Your task to perform on an android device: turn notification dots on Image 0: 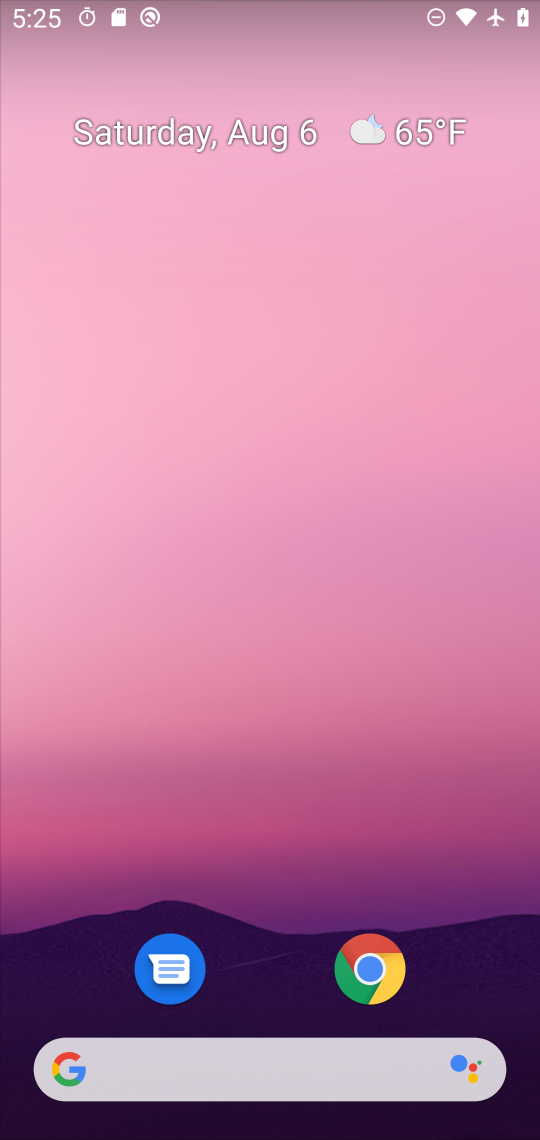
Step 0: drag from (277, 988) to (270, 1)
Your task to perform on an android device: turn notification dots on Image 1: 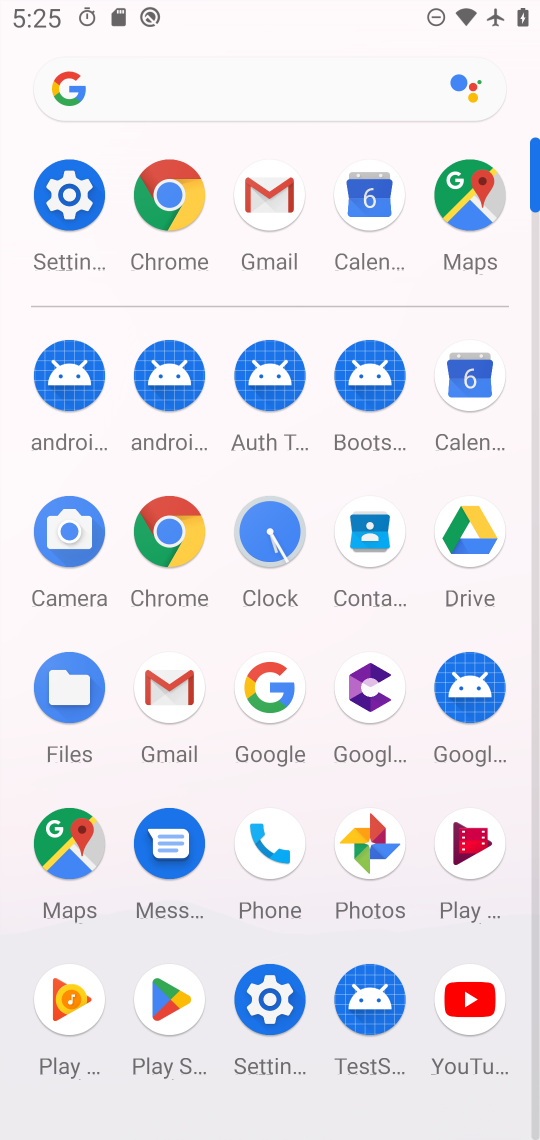
Step 1: click (68, 200)
Your task to perform on an android device: turn notification dots on Image 2: 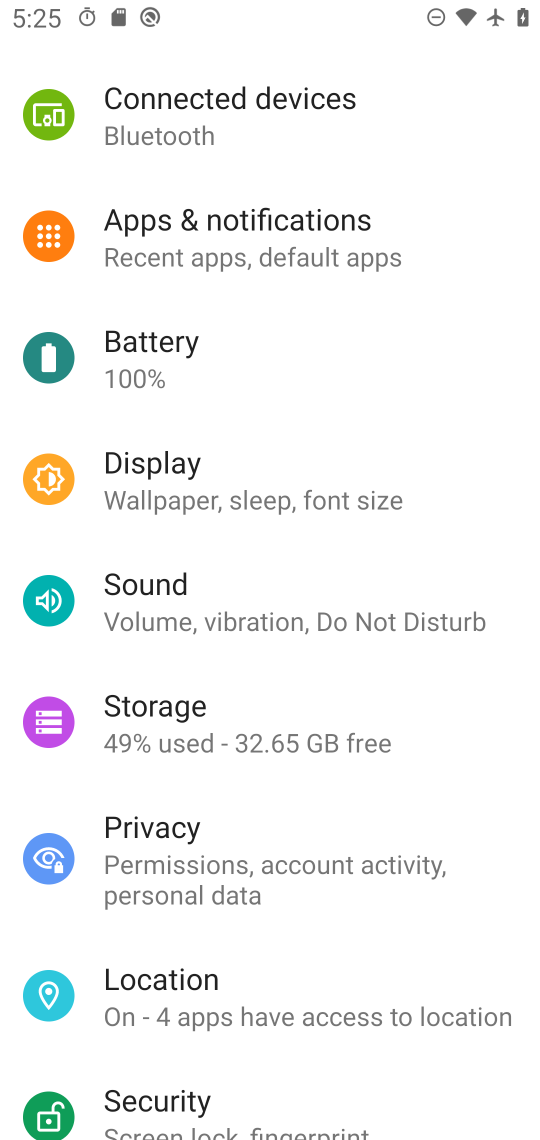
Step 2: drag from (389, 1070) to (321, 1014)
Your task to perform on an android device: turn notification dots on Image 3: 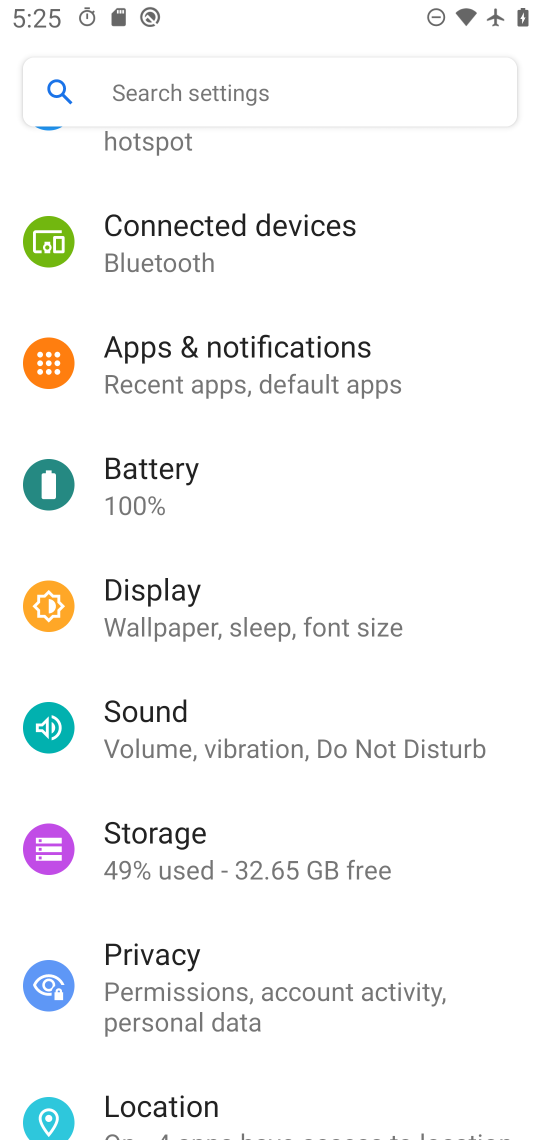
Step 3: click (225, 369)
Your task to perform on an android device: turn notification dots on Image 4: 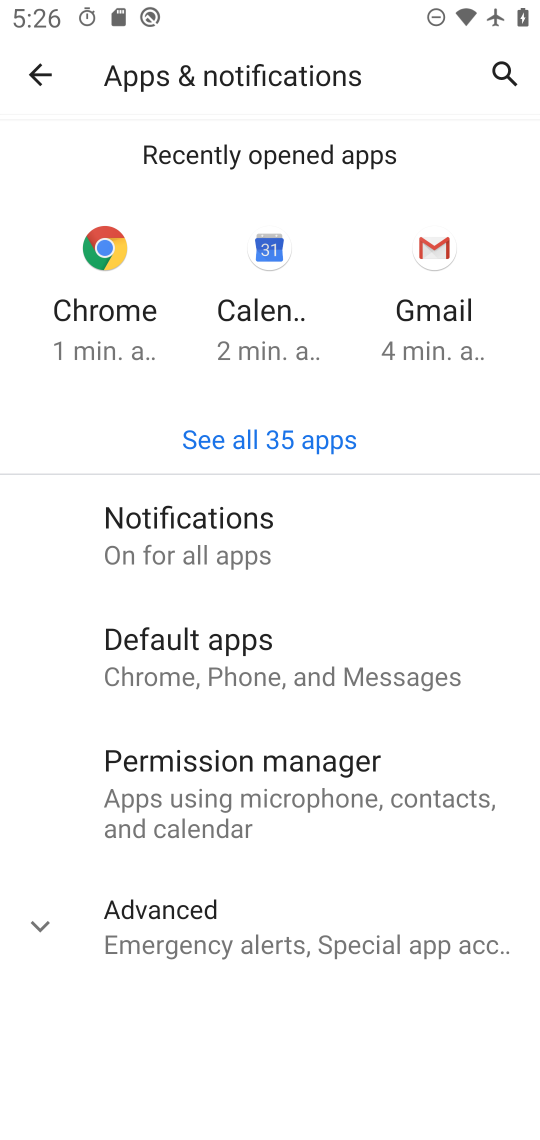
Step 4: click (193, 512)
Your task to perform on an android device: turn notification dots on Image 5: 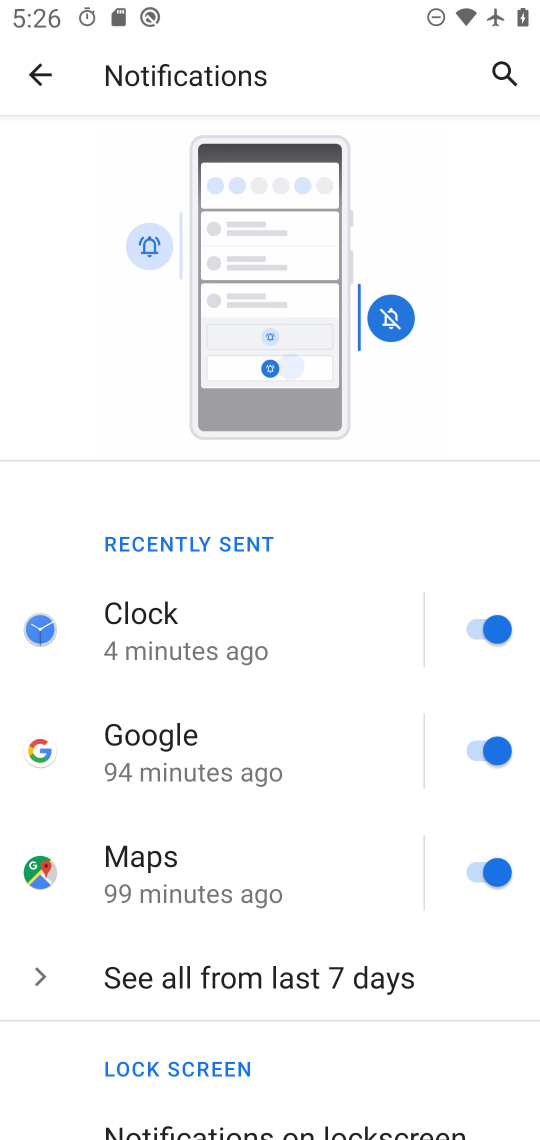
Step 5: drag from (344, 943) to (331, 739)
Your task to perform on an android device: turn notification dots on Image 6: 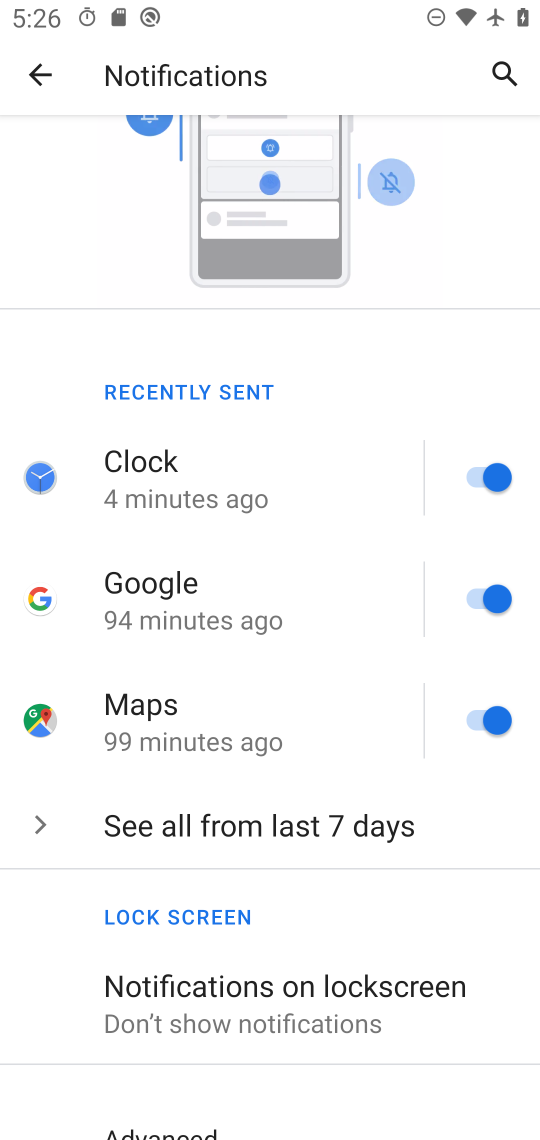
Step 6: drag from (436, 1050) to (416, 722)
Your task to perform on an android device: turn notification dots on Image 7: 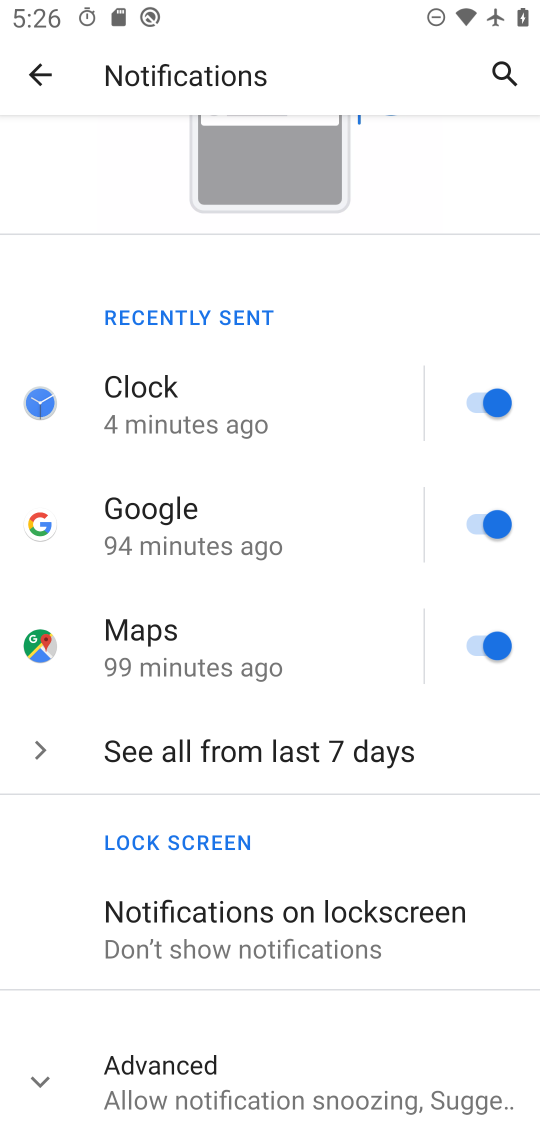
Step 7: click (137, 1076)
Your task to perform on an android device: turn notification dots on Image 8: 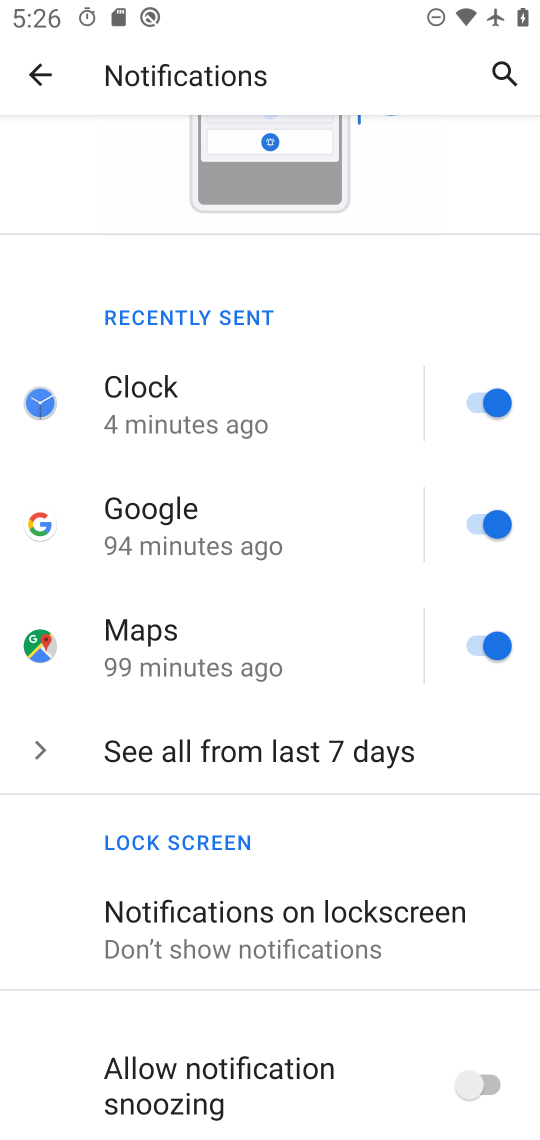
Step 8: drag from (366, 1057) to (243, 303)
Your task to perform on an android device: turn notification dots on Image 9: 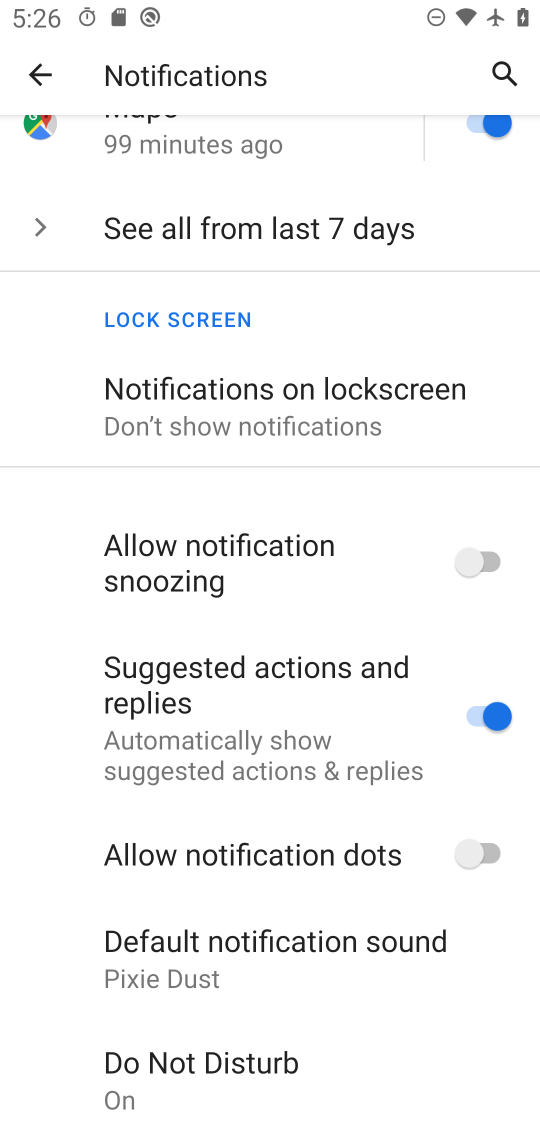
Step 9: click (473, 856)
Your task to perform on an android device: turn notification dots on Image 10: 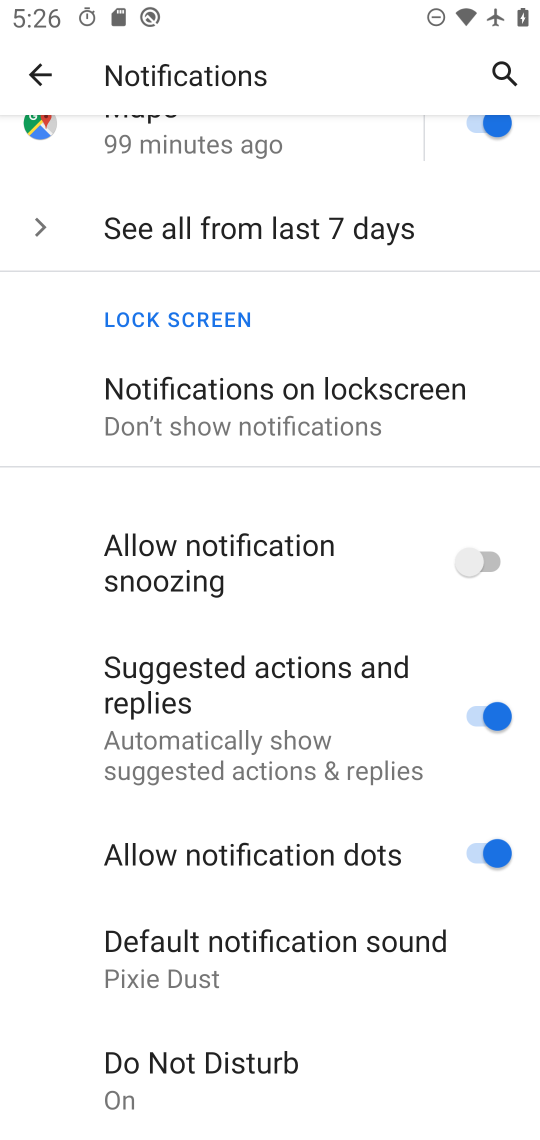
Step 10: task complete